Your task to perform on an android device: set default search engine in the chrome app Image 0: 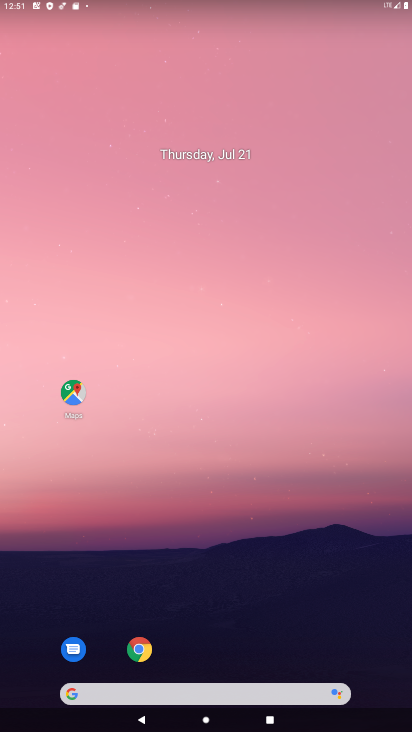
Step 0: click (143, 646)
Your task to perform on an android device: set default search engine in the chrome app Image 1: 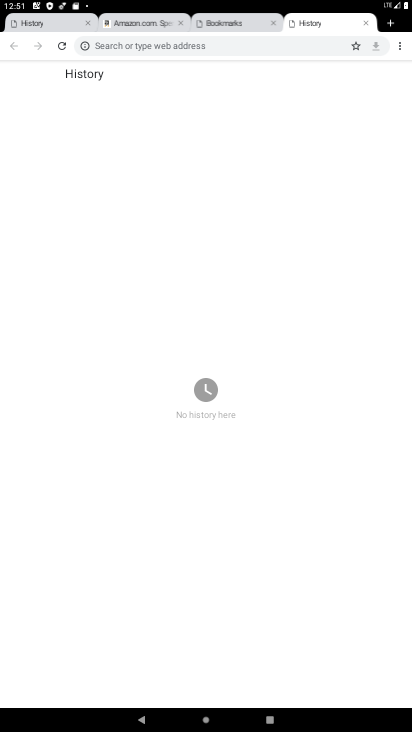
Step 1: click (400, 47)
Your task to perform on an android device: set default search engine in the chrome app Image 2: 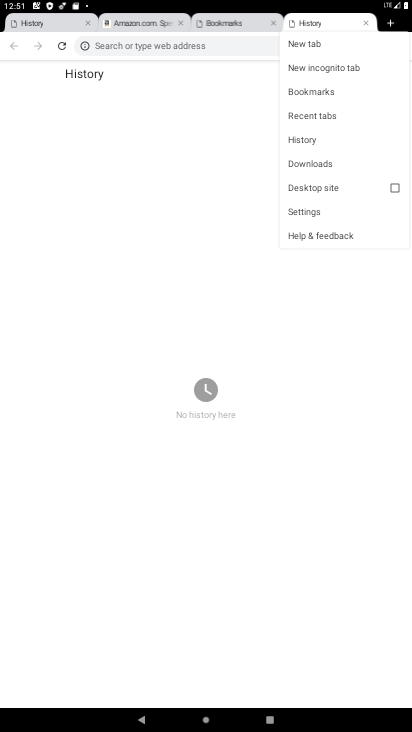
Step 2: click (308, 210)
Your task to perform on an android device: set default search engine in the chrome app Image 3: 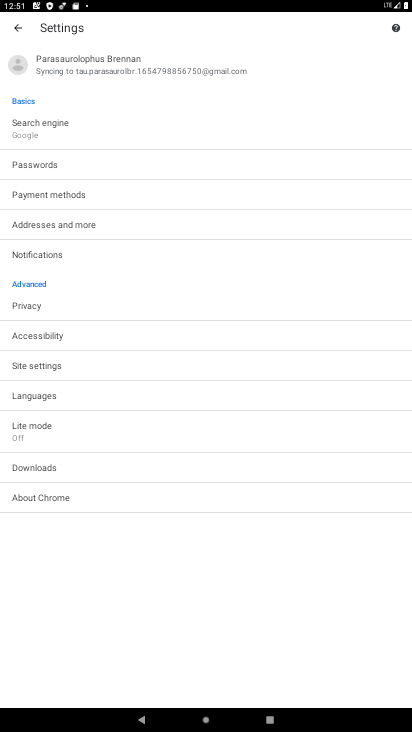
Step 3: click (28, 130)
Your task to perform on an android device: set default search engine in the chrome app Image 4: 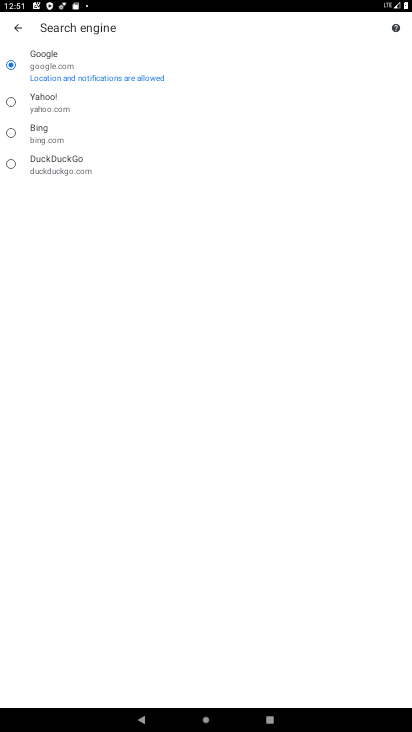
Step 4: click (14, 134)
Your task to perform on an android device: set default search engine in the chrome app Image 5: 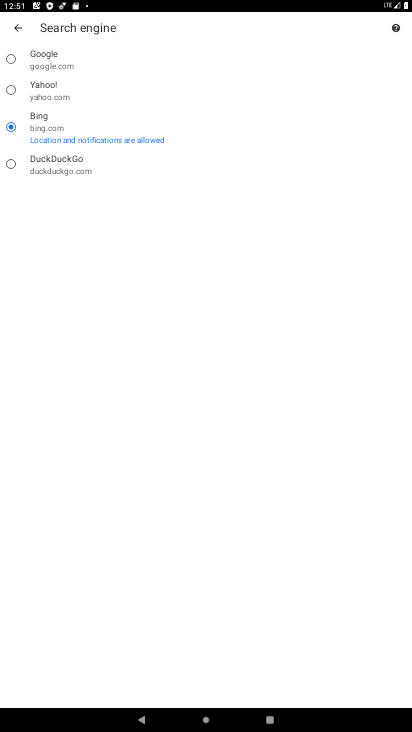
Step 5: task complete